Your task to perform on an android device: snooze an email in the gmail app Image 0: 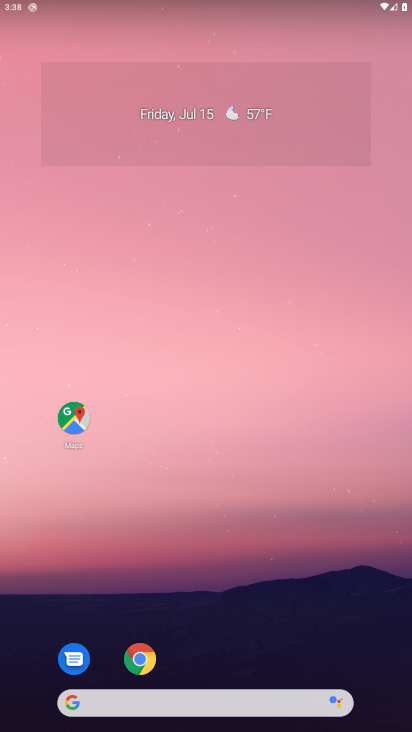
Step 0: drag from (52, 659) to (311, 117)
Your task to perform on an android device: snooze an email in the gmail app Image 1: 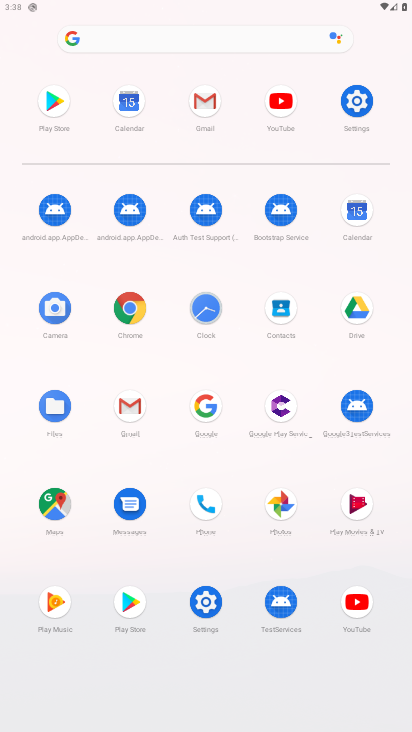
Step 1: click (203, 116)
Your task to perform on an android device: snooze an email in the gmail app Image 2: 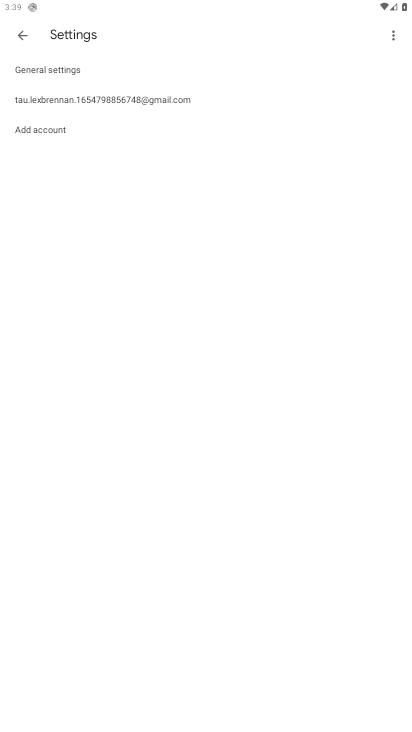
Step 2: click (20, 39)
Your task to perform on an android device: snooze an email in the gmail app Image 3: 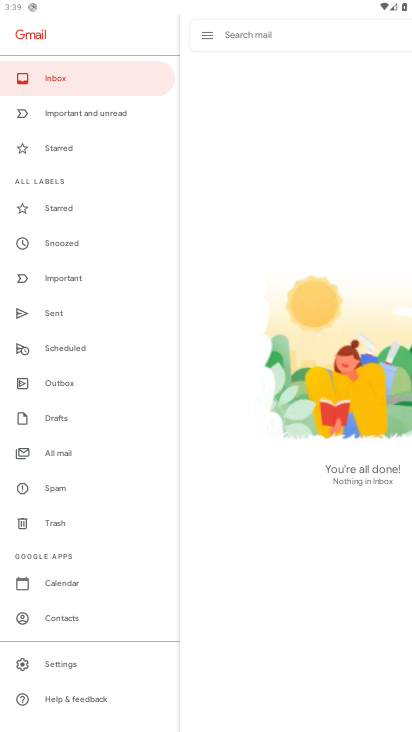
Step 3: click (50, 251)
Your task to perform on an android device: snooze an email in the gmail app Image 4: 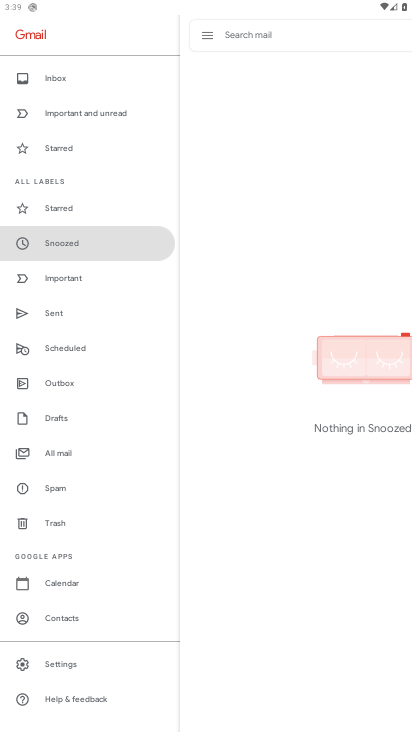
Step 4: task complete